Your task to perform on an android device: turn off airplane mode Image 0: 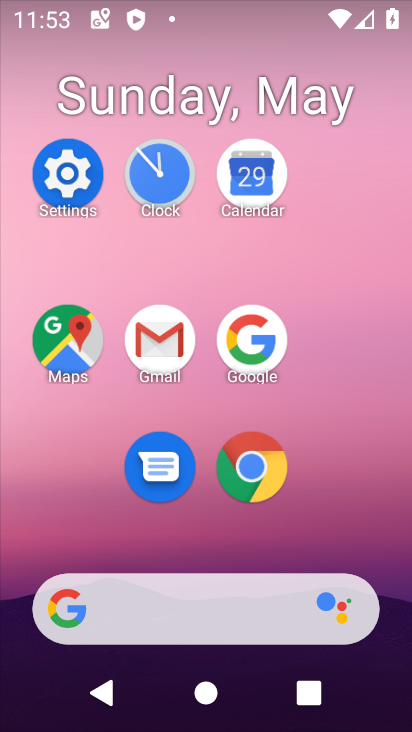
Step 0: click (90, 174)
Your task to perform on an android device: turn off airplane mode Image 1: 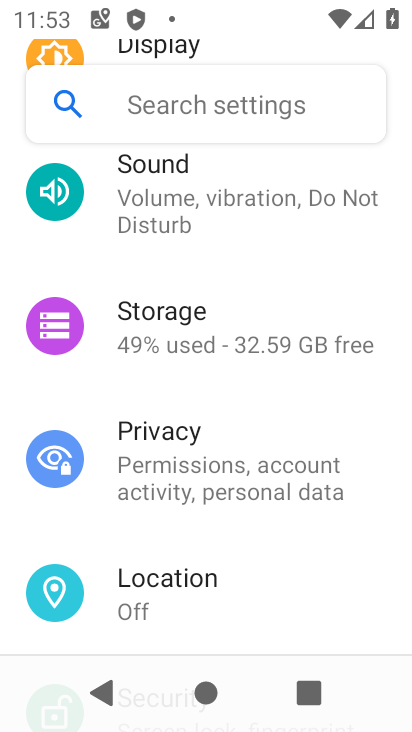
Step 1: drag from (319, 416) to (329, 707)
Your task to perform on an android device: turn off airplane mode Image 2: 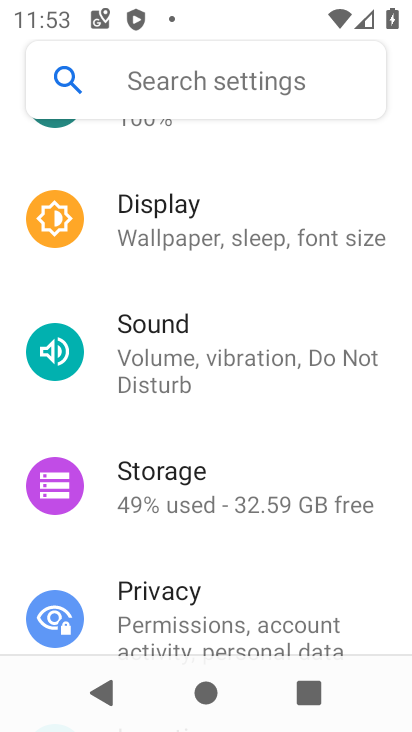
Step 2: drag from (329, 212) to (287, 662)
Your task to perform on an android device: turn off airplane mode Image 3: 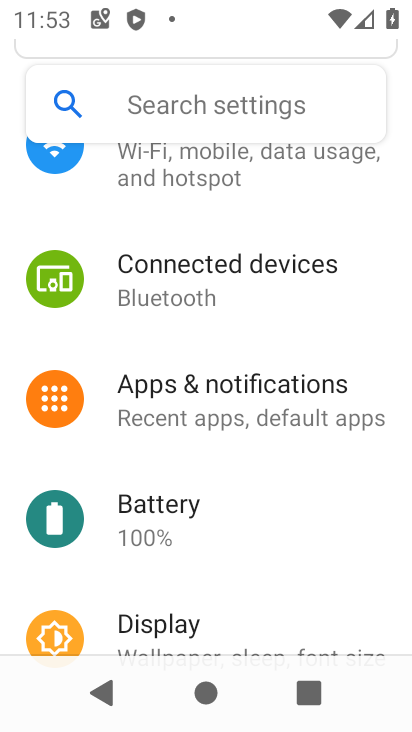
Step 3: click (271, 183)
Your task to perform on an android device: turn off airplane mode Image 4: 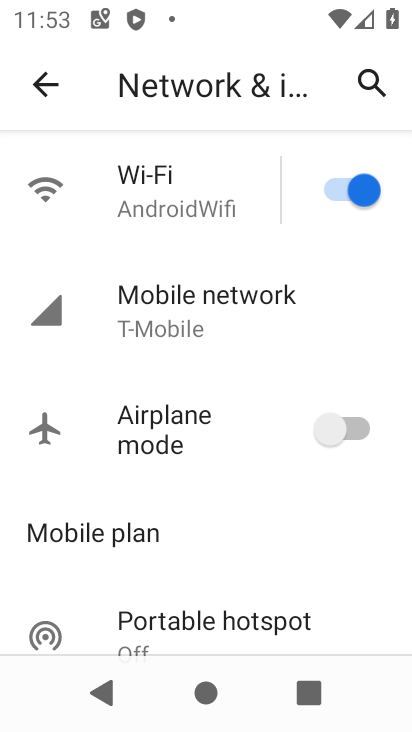
Step 4: task complete